Your task to perform on an android device: check battery use Image 0: 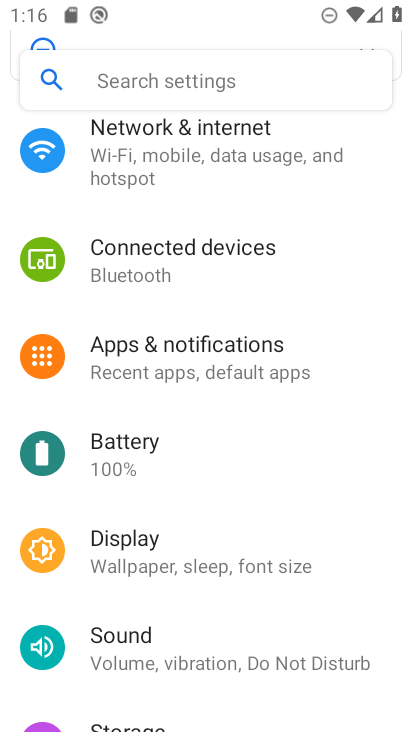
Step 0: click (147, 462)
Your task to perform on an android device: check battery use Image 1: 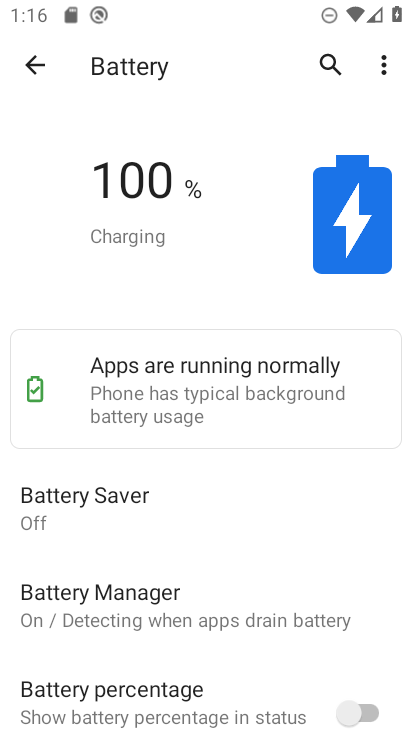
Step 1: task complete